Your task to perform on an android device: Open internet settings Image 0: 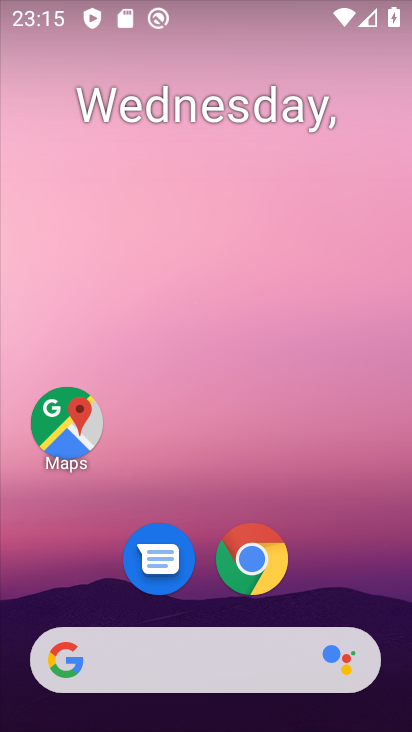
Step 0: drag from (219, 581) to (223, 209)
Your task to perform on an android device: Open internet settings Image 1: 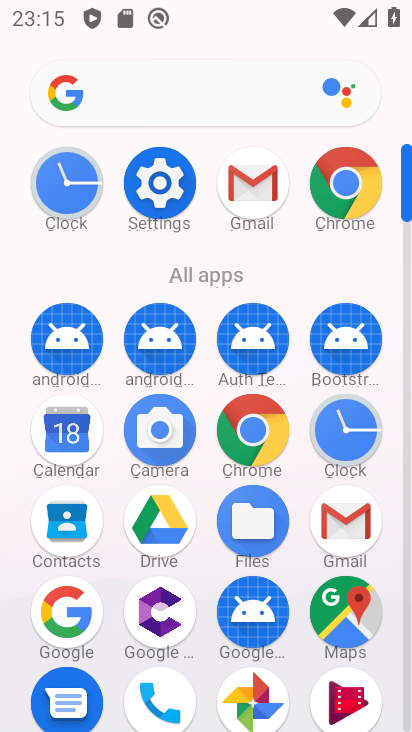
Step 1: click (160, 181)
Your task to perform on an android device: Open internet settings Image 2: 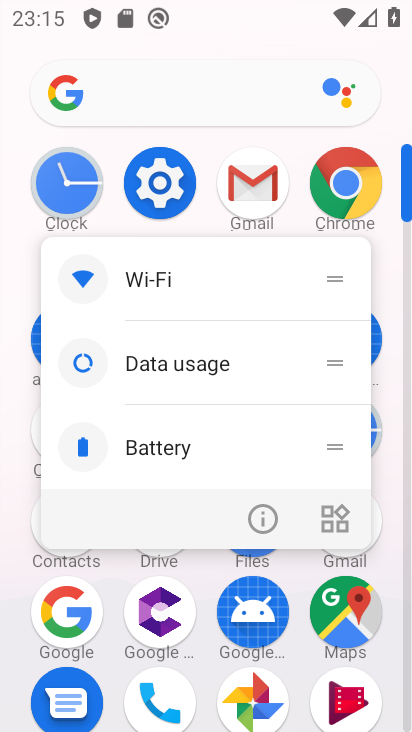
Step 2: click (160, 181)
Your task to perform on an android device: Open internet settings Image 3: 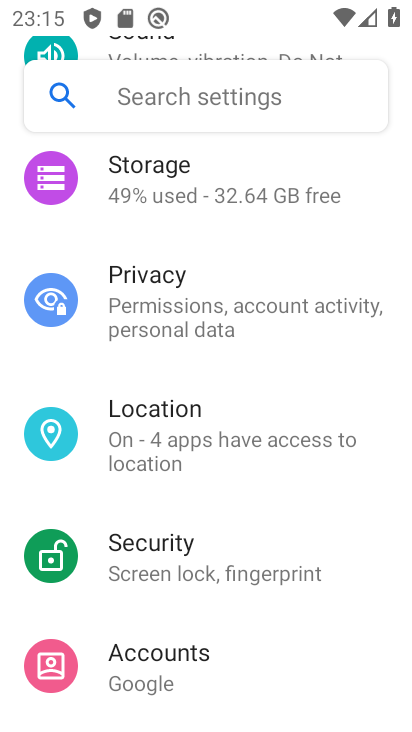
Step 3: drag from (232, 675) to (260, 722)
Your task to perform on an android device: Open internet settings Image 4: 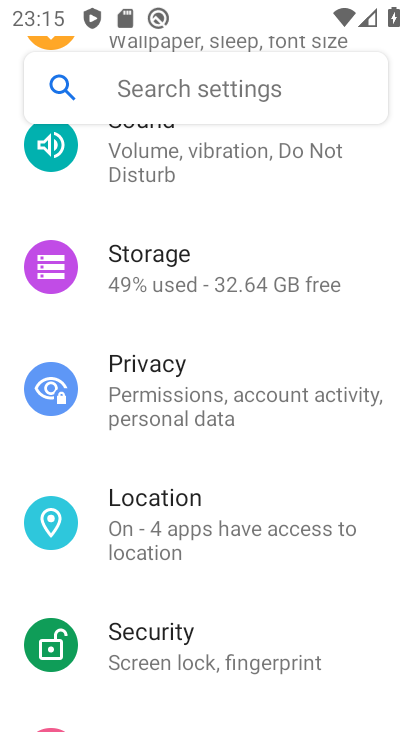
Step 4: drag from (239, 255) to (252, 693)
Your task to perform on an android device: Open internet settings Image 5: 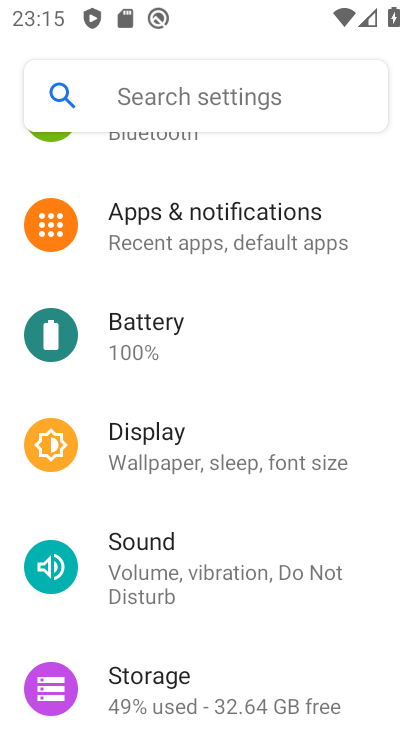
Step 5: drag from (220, 299) to (225, 719)
Your task to perform on an android device: Open internet settings Image 6: 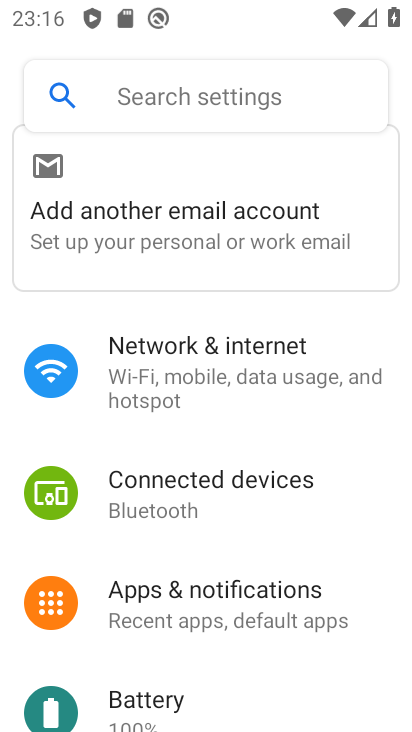
Step 6: click (172, 367)
Your task to perform on an android device: Open internet settings Image 7: 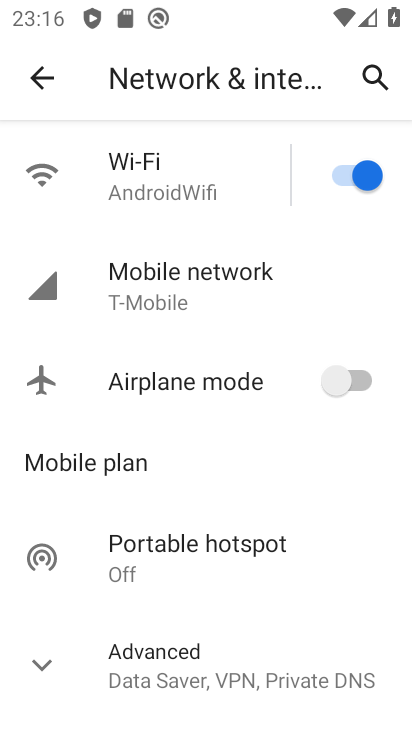
Step 7: task complete